Your task to perform on an android device: Go to internet settings Image 0: 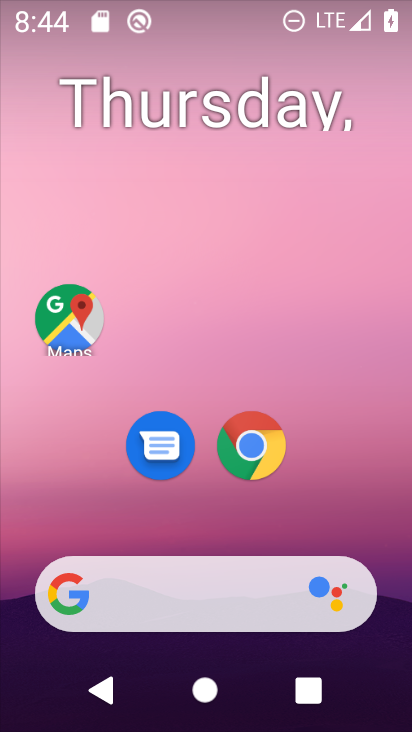
Step 0: drag from (398, 622) to (297, 21)
Your task to perform on an android device: Go to internet settings Image 1: 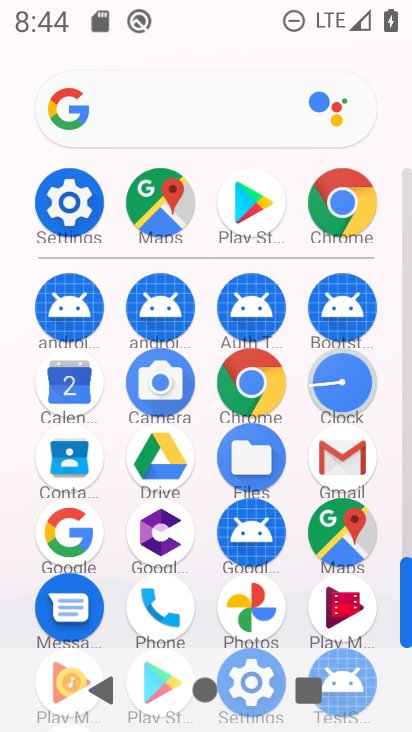
Step 1: click (73, 206)
Your task to perform on an android device: Go to internet settings Image 2: 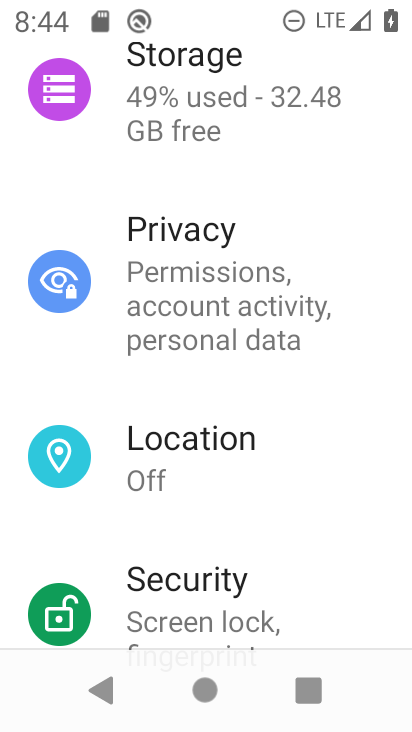
Step 2: drag from (259, 122) to (291, 638)
Your task to perform on an android device: Go to internet settings Image 3: 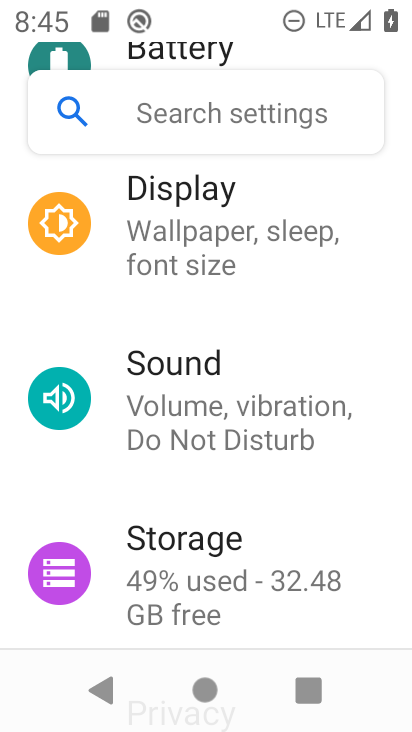
Step 3: drag from (213, 227) to (222, 669)
Your task to perform on an android device: Go to internet settings Image 4: 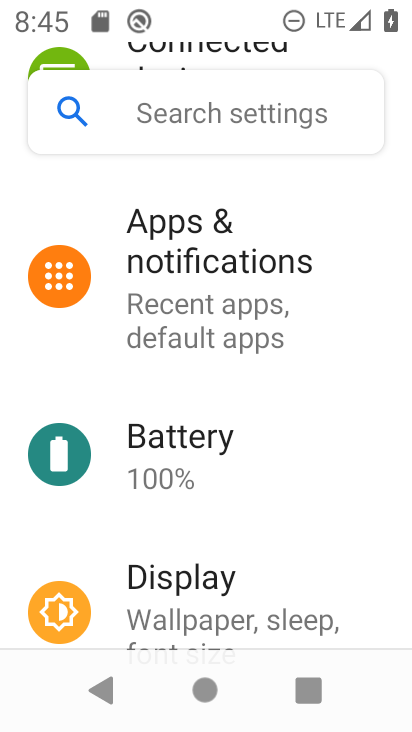
Step 4: drag from (263, 195) to (264, 612)
Your task to perform on an android device: Go to internet settings Image 5: 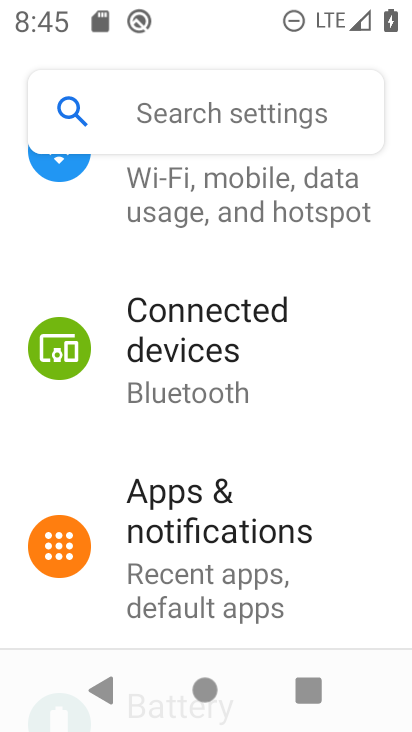
Step 5: drag from (189, 218) to (227, 687)
Your task to perform on an android device: Go to internet settings Image 6: 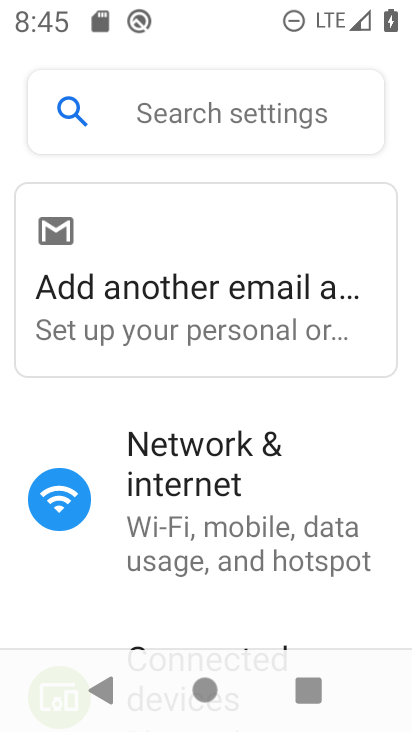
Step 6: click (235, 547)
Your task to perform on an android device: Go to internet settings Image 7: 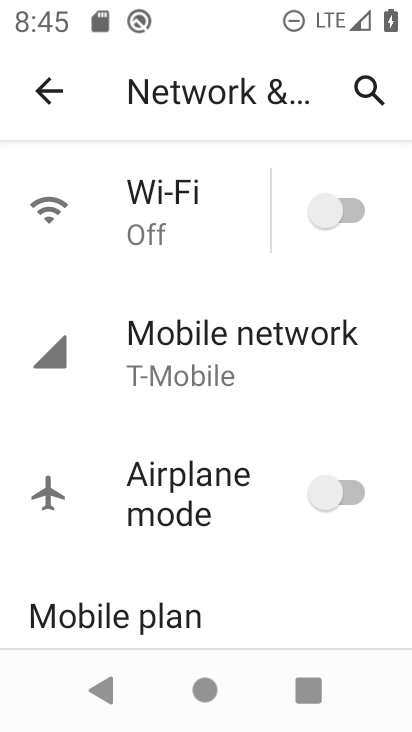
Step 7: task complete